Your task to perform on an android device: turn off improve location accuracy Image 0: 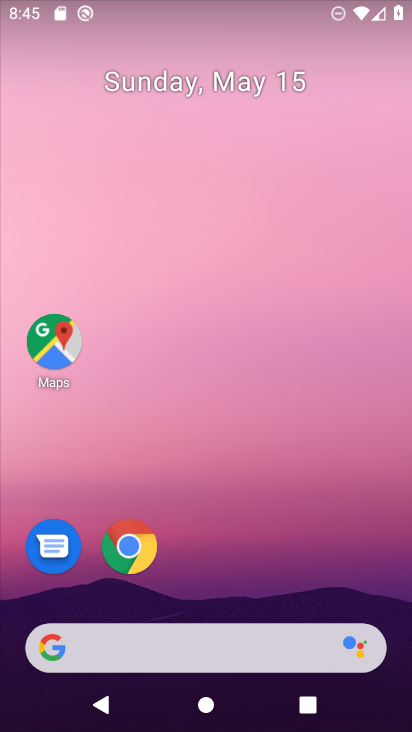
Step 0: drag from (269, 526) to (275, 65)
Your task to perform on an android device: turn off improve location accuracy Image 1: 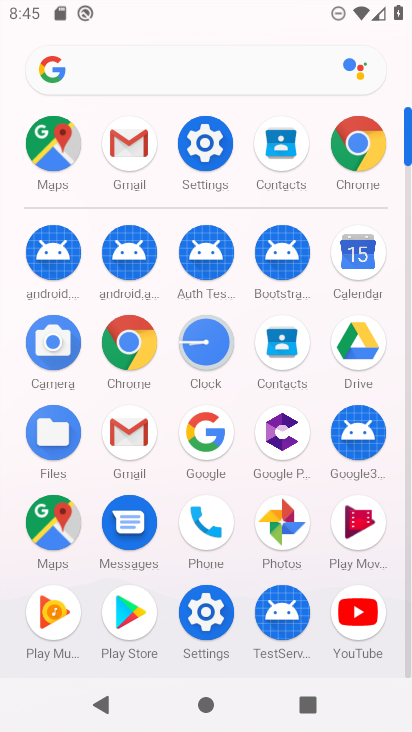
Step 1: click (206, 147)
Your task to perform on an android device: turn off improve location accuracy Image 2: 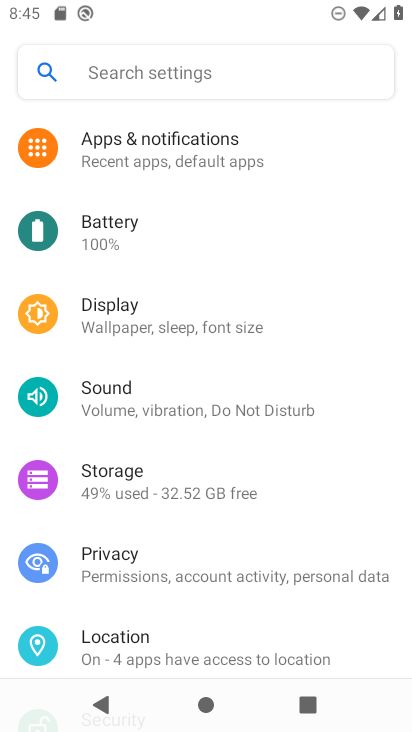
Step 2: click (272, 646)
Your task to perform on an android device: turn off improve location accuracy Image 3: 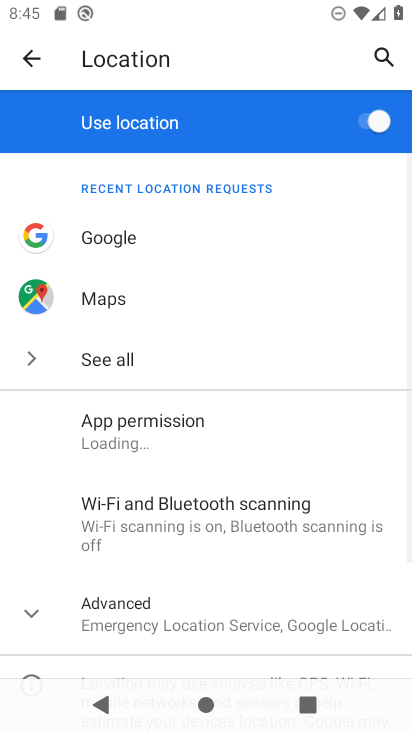
Step 3: drag from (288, 560) to (311, 183)
Your task to perform on an android device: turn off improve location accuracy Image 4: 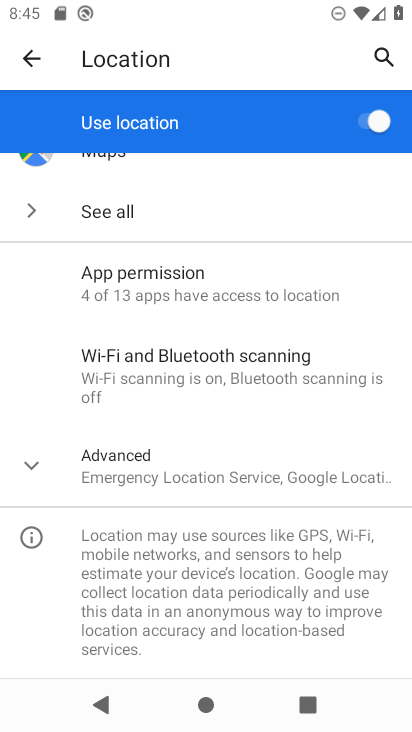
Step 4: click (23, 455)
Your task to perform on an android device: turn off improve location accuracy Image 5: 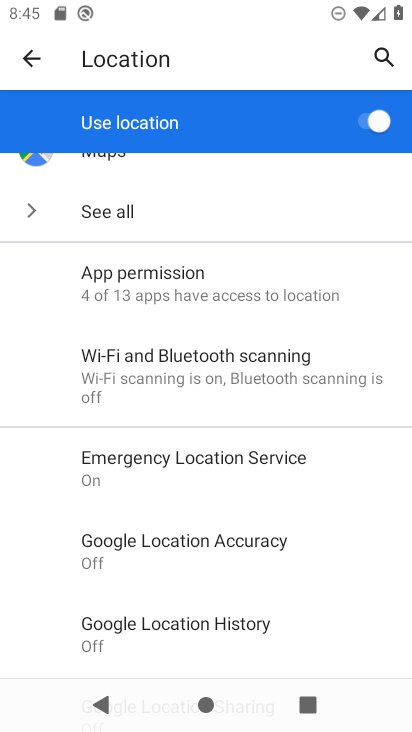
Step 5: click (267, 558)
Your task to perform on an android device: turn off improve location accuracy Image 6: 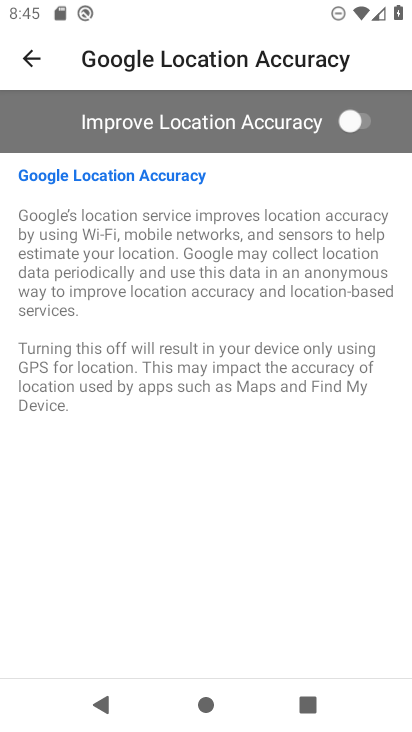
Step 6: click (362, 116)
Your task to perform on an android device: turn off improve location accuracy Image 7: 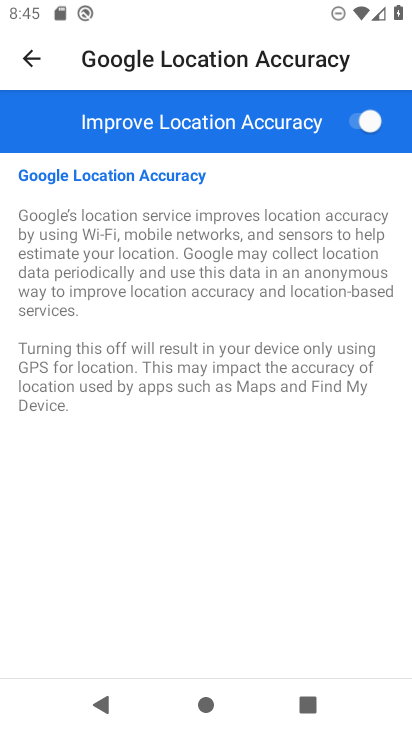
Step 7: click (358, 123)
Your task to perform on an android device: turn off improve location accuracy Image 8: 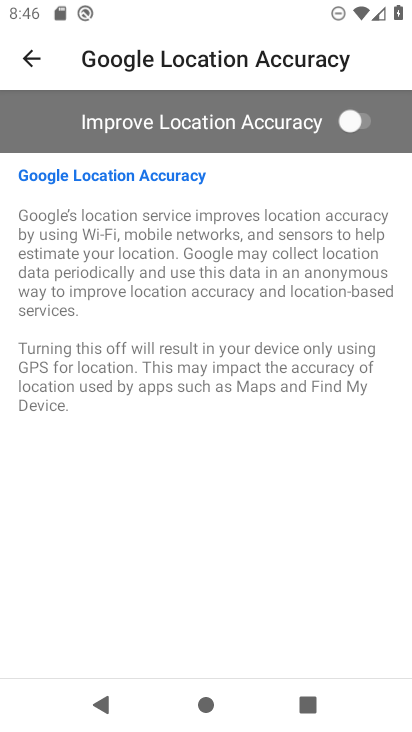
Step 8: task complete